Your task to perform on an android device: change the clock display to show seconds Image 0: 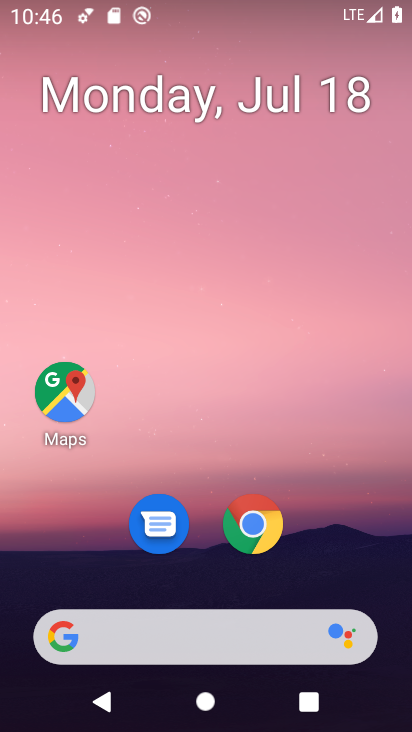
Step 0: click (254, 526)
Your task to perform on an android device: change the clock display to show seconds Image 1: 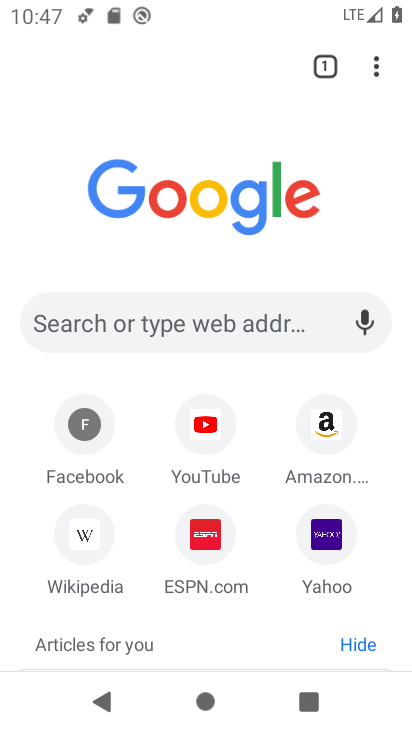
Step 1: click (332, 420)
Your task to perform on an android device: change the clock display to show seconds Image 2: 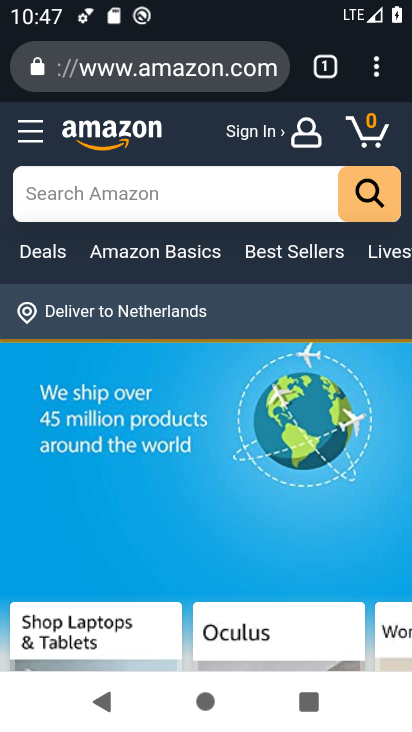
Step 2: task complete